Your task to perform on an android device: move a message to another label in the gmail app Image 0: 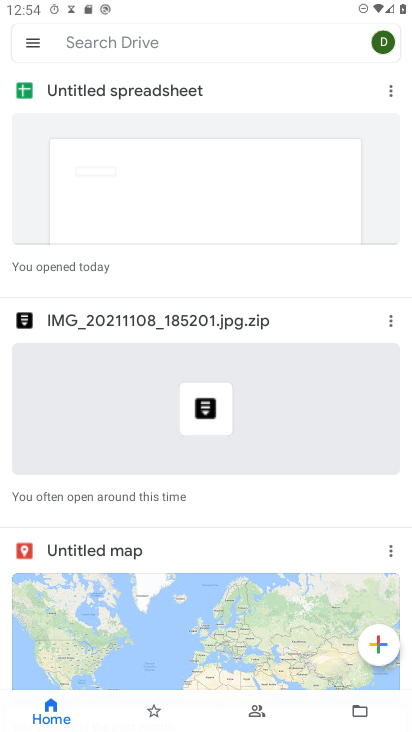
Step 0: press home button
Your task to perform on an android device: move a message to another label in the gmail app Image 1: 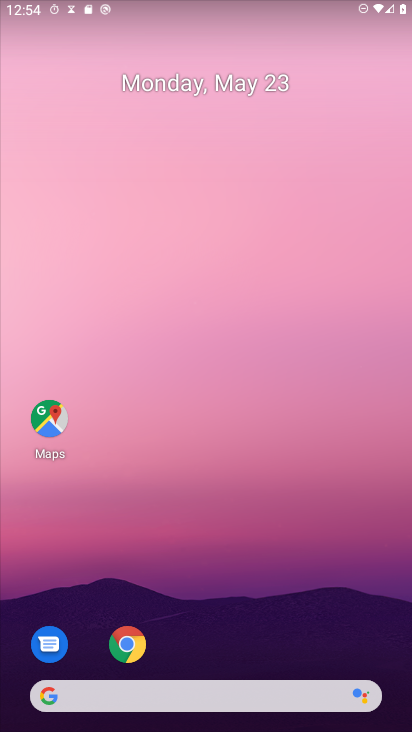
Step 1: drag from (257, 619) to (313, 62)
Your task to perform on an android device: move a message to another label in the gmail app Image 2: 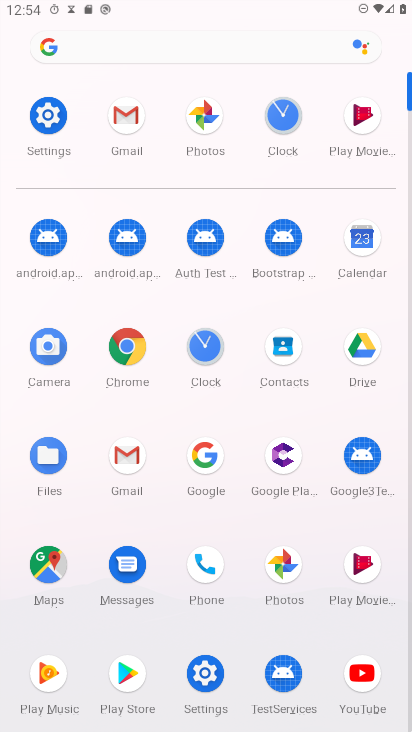
Step 2: click (123, 460)
Your task to perform on an android device: move a message to another label in the gmail app Image 3: 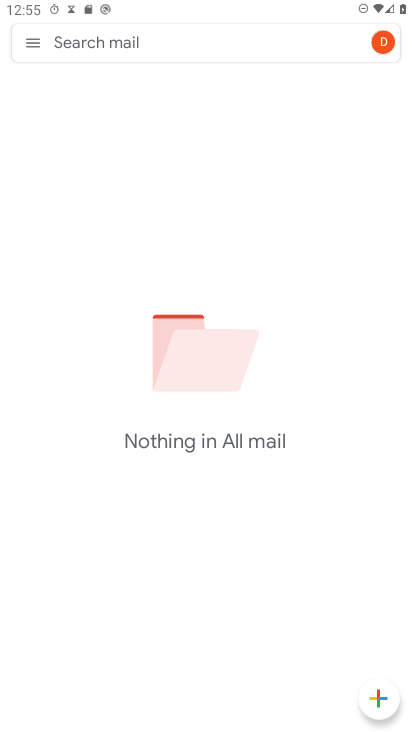
Step 3: click (32, 42)
Your task to perform on an android device: move a message to another label in the gmail app Image 4: 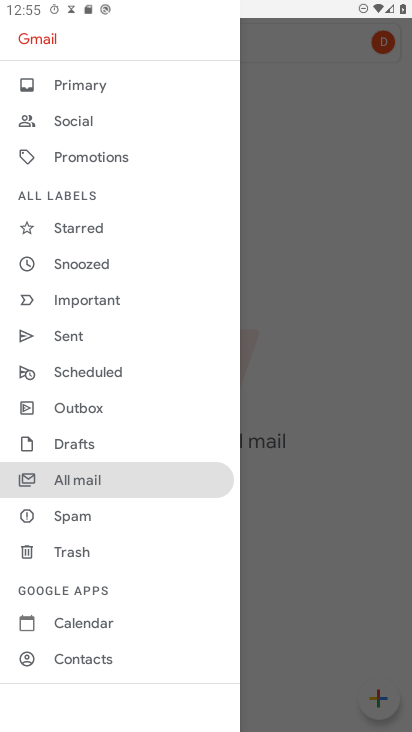
Step 4: click (85, 85)
Your task to perform on an android device: move a message to another label in the gmail app Image 5: 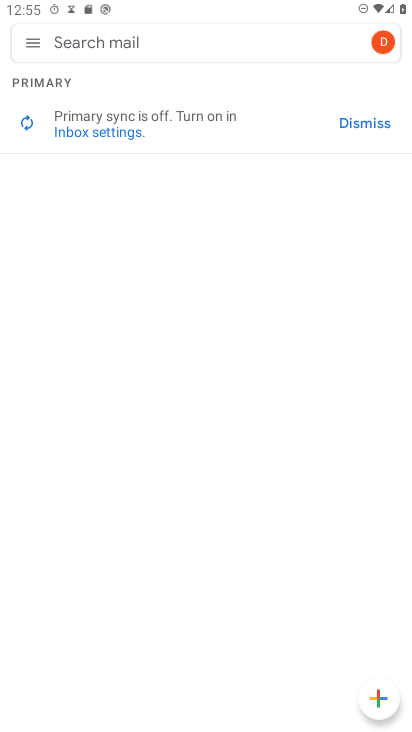
Step 5: task complete